Your task to perform on an android device: Is it going to rain tomorrow? Image 0: 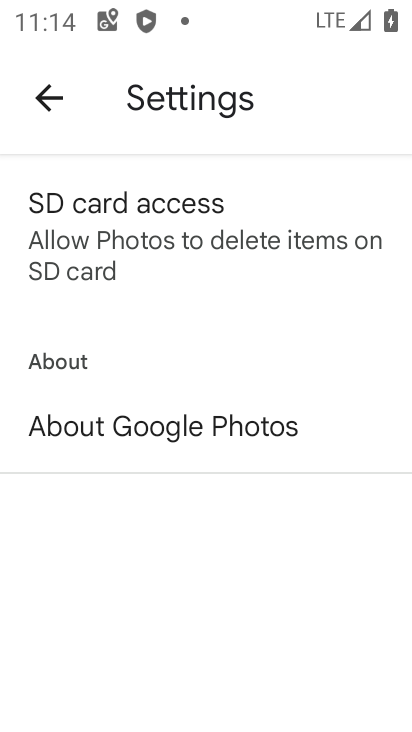
Step 0: drag from (309, 670) to (372, 0)
Your task to perform on an android device: Is it going to rain tomorrow? Image 1: 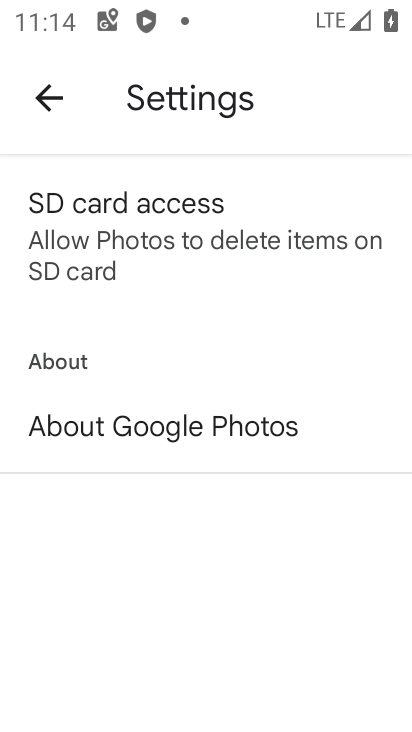
Step 1: press home button
Your task to perform on an android device: Is it going to rain tomorrow? Image 2: 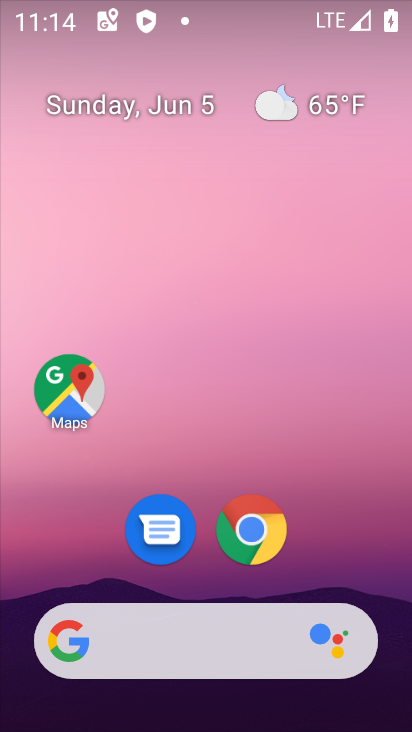
Step 2: click (178, 626)
Your task to perform on an android device: Is it going to rain tomorrow? Image 3: 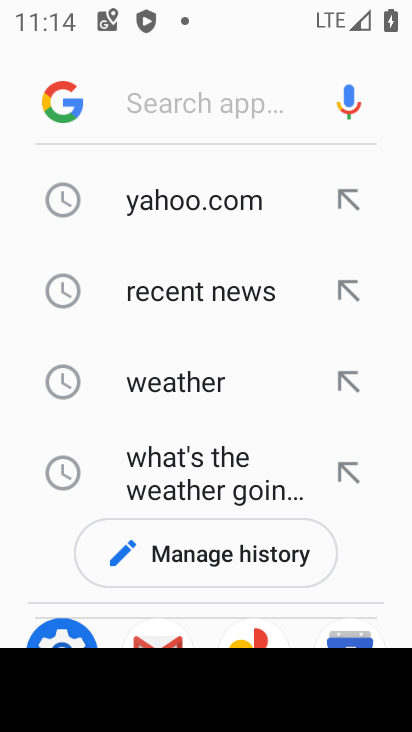
Step 3: type "Is it going to rain tomorrow?"
Your task to perform on an android device: Is it going to rain tomorrow? Image 4: 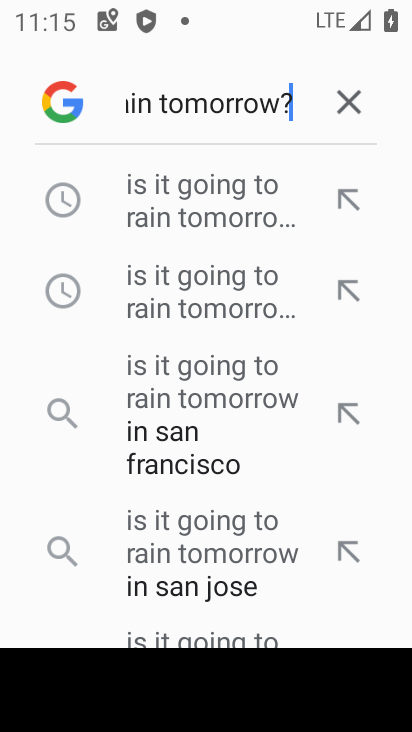
Step 4: click (222, 217)
Your task to perform on an android device: Is it going to rain tomorrow? Image 5: 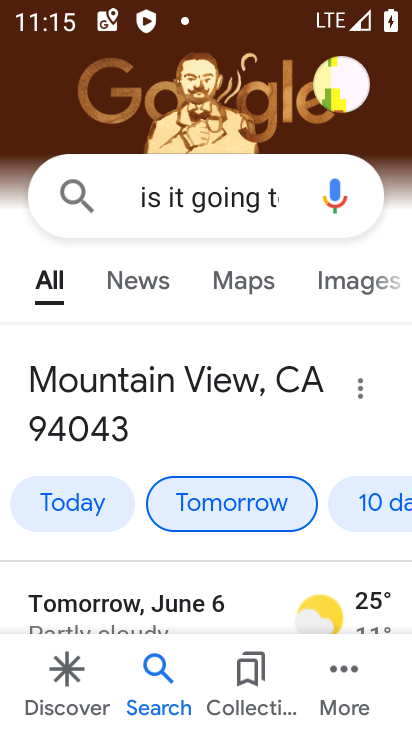
Step 5: task complete